Your task to perform on an android device: Go to accessibility settings Image 0: 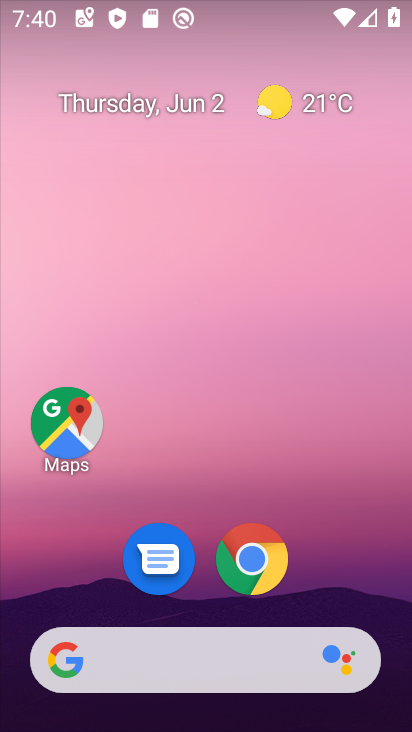
Step 0: drag from (341, 538) to (281, 169)
Your task to perform on an android device: Go to accessibility settings Image 1: 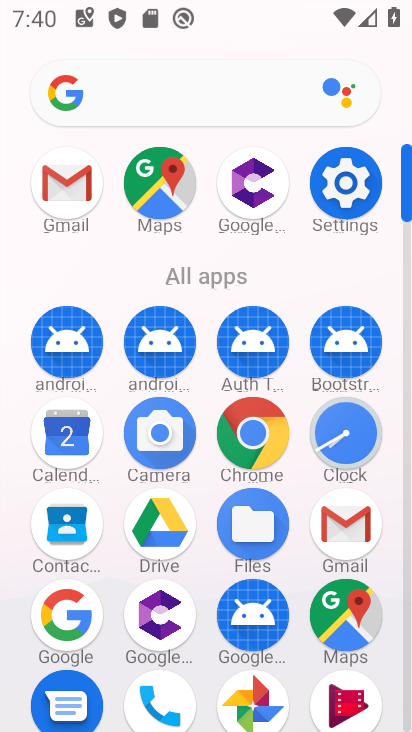
Step 1: click (348, 171)
Your task to perform on an android device: Go to accessibility settings Image 2: 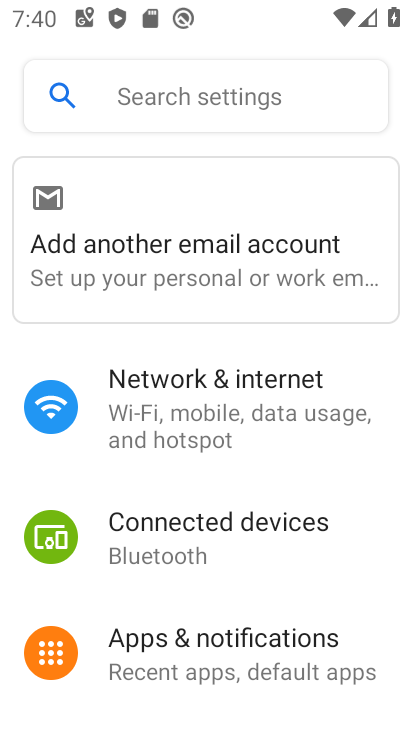
Step 2: drag from (205, 577) to (169, 139)
Your task to perform on an android device: Go to accessibility settings Image 3: 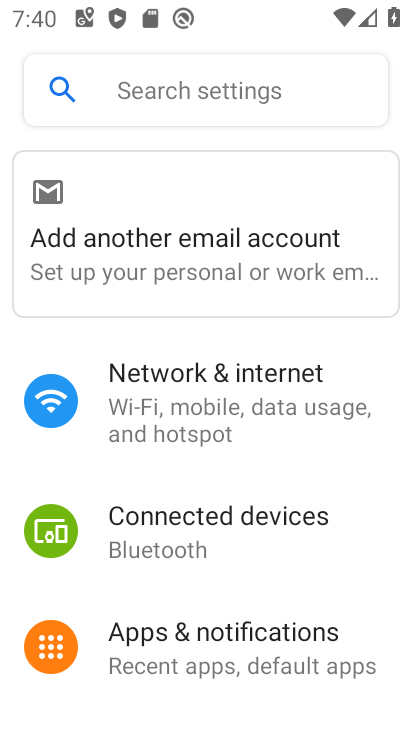
Step 3: drag from (199, 588) to (241, 269)
Your task to perform on an android device: Go to accessibility settings Image 4: 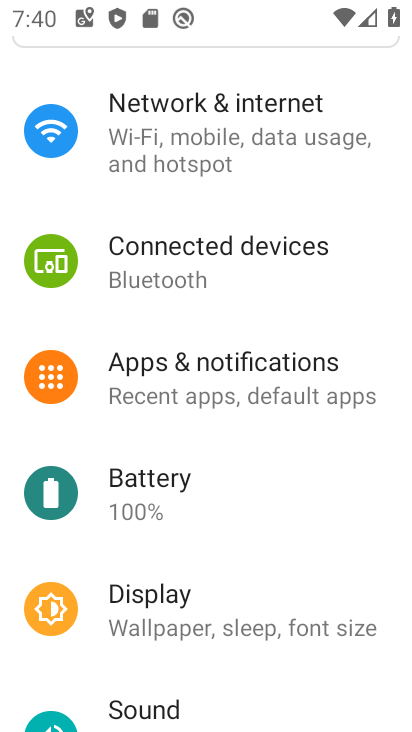
Step 4: drag from (238, 575) to (251, 255)
Your task to perform on an android device: Go to accessibility settings Image 5: 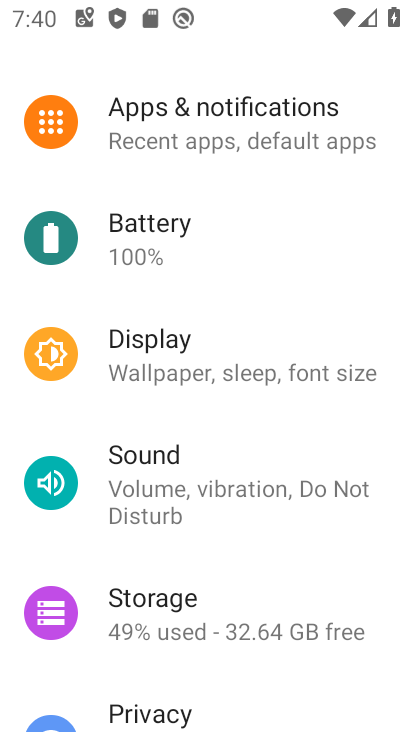
Step 5: drag from (216, 563) to (245, 45)
Your task to perform on an android device: Go to accessibility settings Image 6: 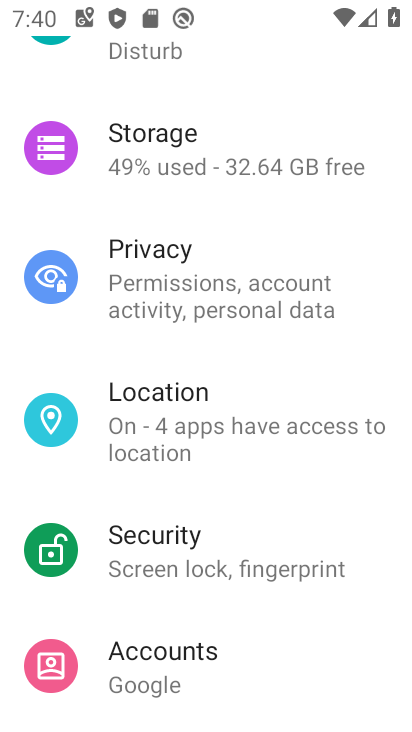
Step 6: drag from (269, 616) to (278, 399)
Your task to perform on an android device: Go to accessibility settings Image 7: 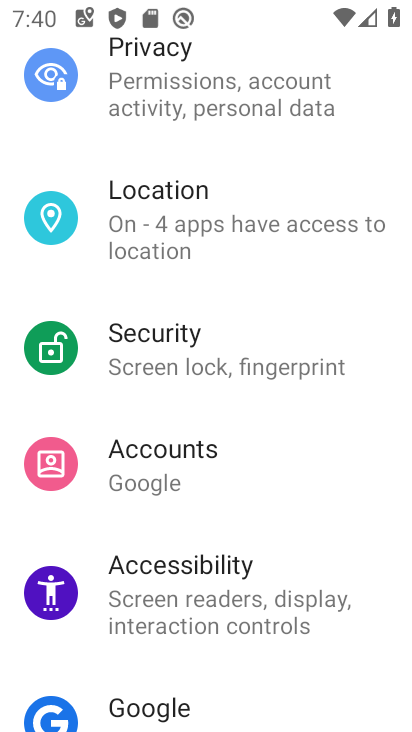
Step 7: click (180, 552)
Your task to perform on an android device: Go to accessibility settings Image 8: 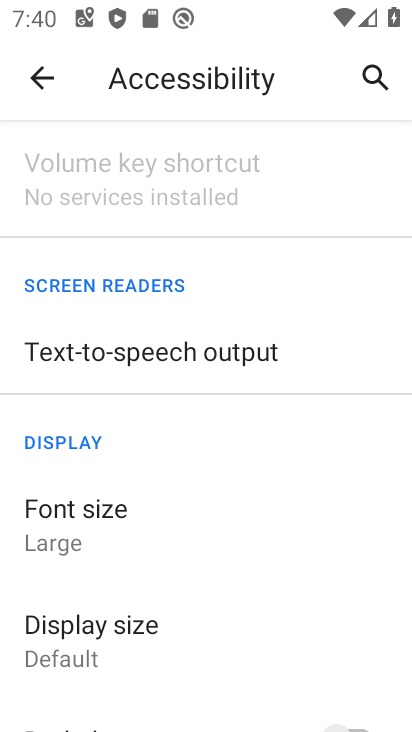
Step 8: task complete